Your task to perform on an android device: Go to Yahoo.com Image 0: 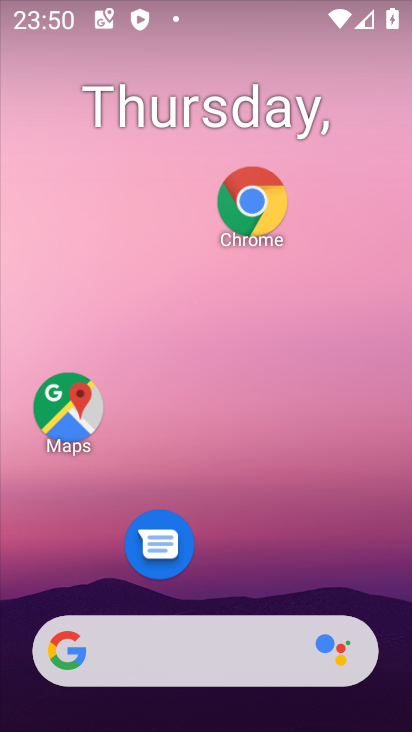
Step 0: drag from (231, 395) to (210, 108)
Your task to perform on an android device: Go to Yahoo.com Image 1: 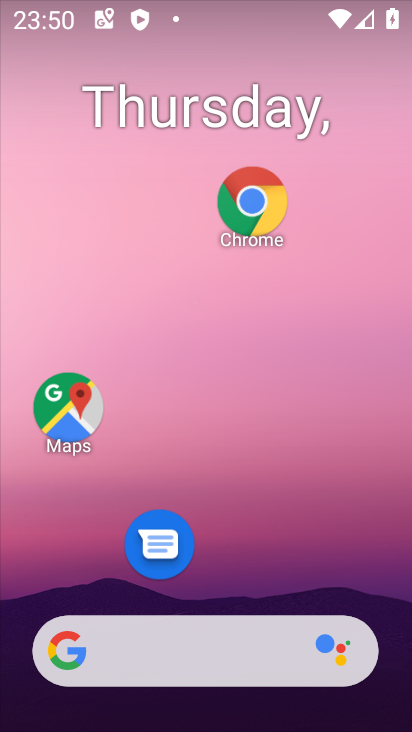
Step 1: drag from (215, 577) to (228, 0)
Your task to perform on an android device: Go to Yahoo.com Image 2: 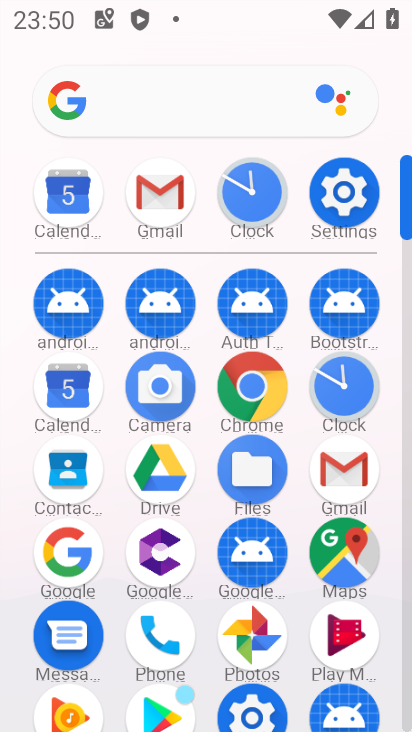
Step 2: click (254, 377)
Your task to perform on an android device: Go to Yahoo.com Image 3: 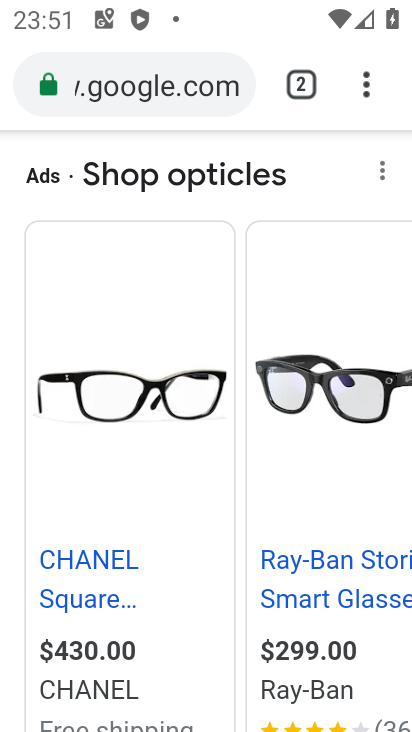
Step 3: click (298, 79)
Your task to perform on an android device: Go to Yahoo.com Image 4: 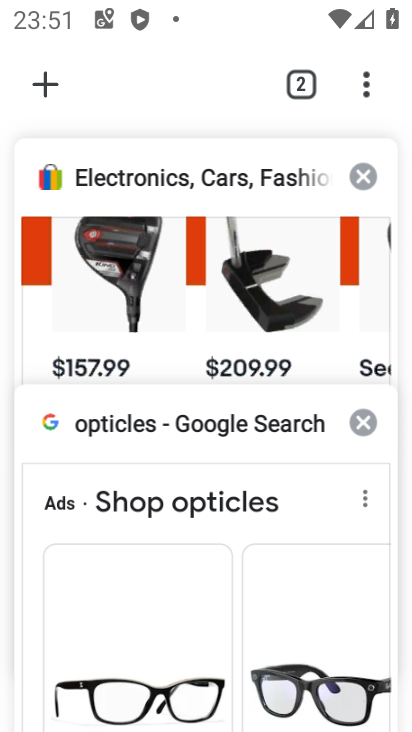
Step 4: click (364, 173)
Your task to perform on an android device: Go to Yahoo.com Image 5: 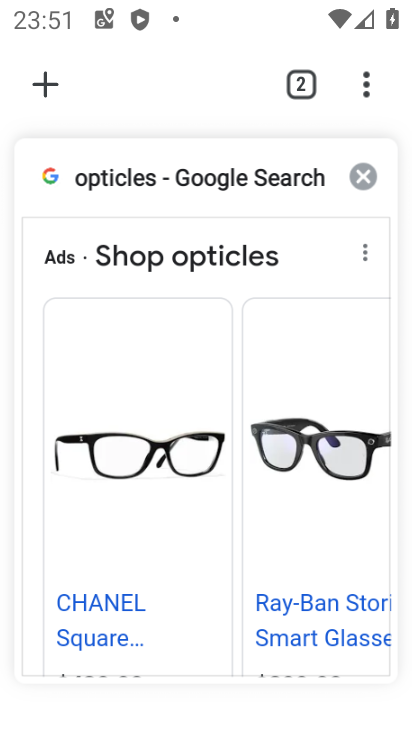
Step 5: click (52, 95)
Your task to perform on an android device: Go to Yahoo.com Image 6: 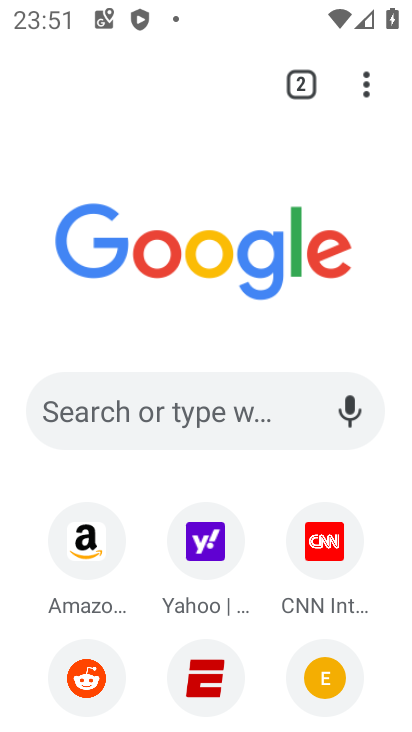
Step 6: click (206, 533)
Your task to perform on an android device: Go to Yahoo.com Image 7: 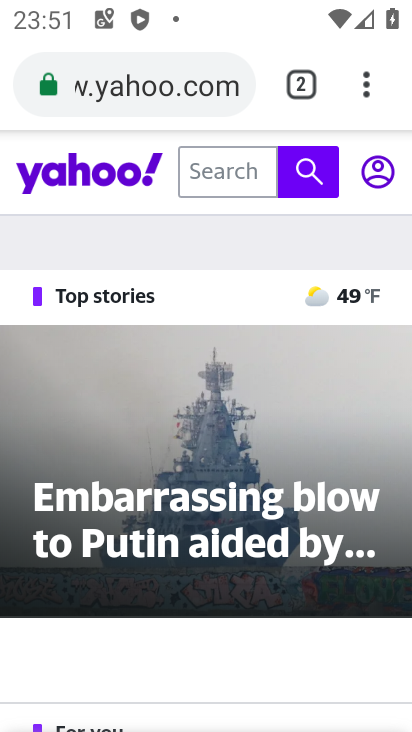
Step 7: task complete